Your task to perform on an android device: empty trash in google photos Image 0: 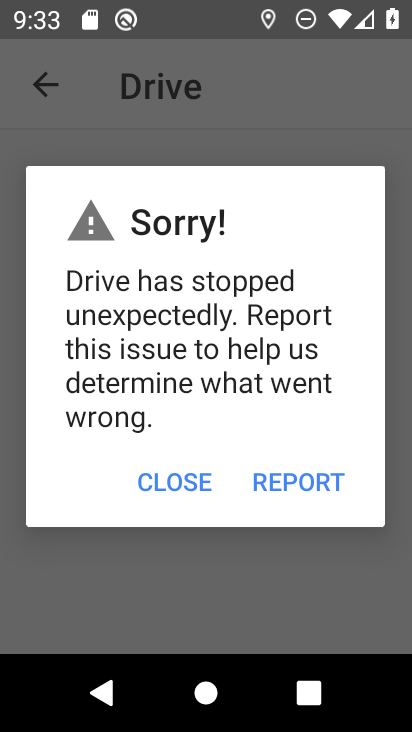
Step 0: press home button
Your task to perform on an android device: empty trash in google photos Image 1: 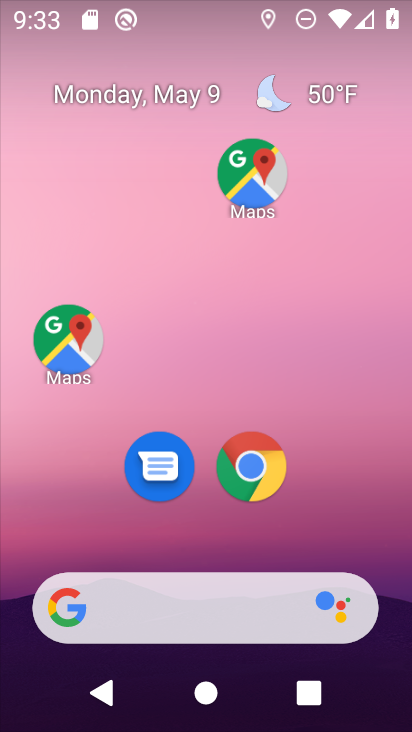
Step 1: drag from (221, 558) to (359, 0)
Your task to perform on an android device: empty trash in google photos Image 2: 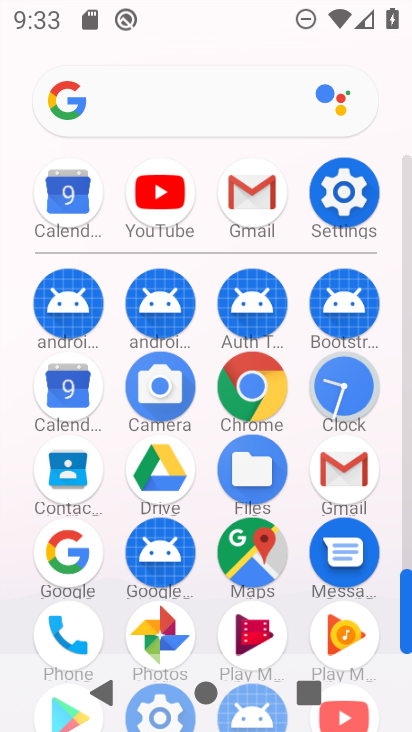
Step 2: click (169, 640)
Your task to perform on an android device: empty trash in google photos Image 3: 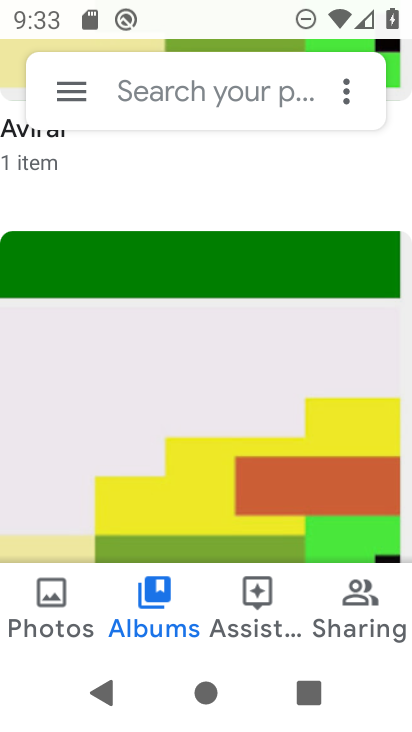
Step 3: click (64, 97)
Your task to perform on an android device: empty trash in google photos Image 4: 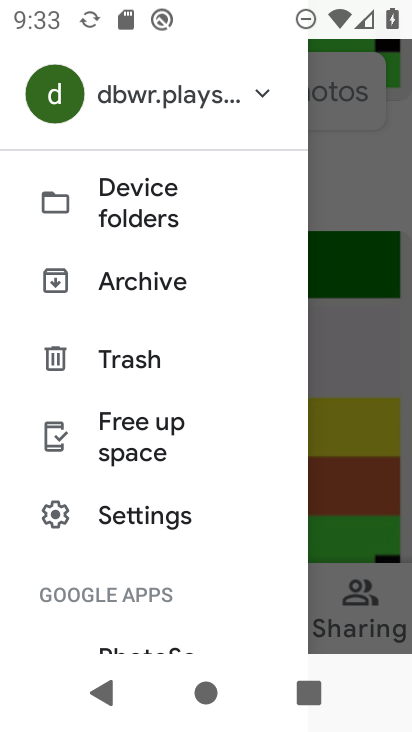
Step 4: click (136, 352)
Your task to perform on an android device: empty trash in google photos Image 5: 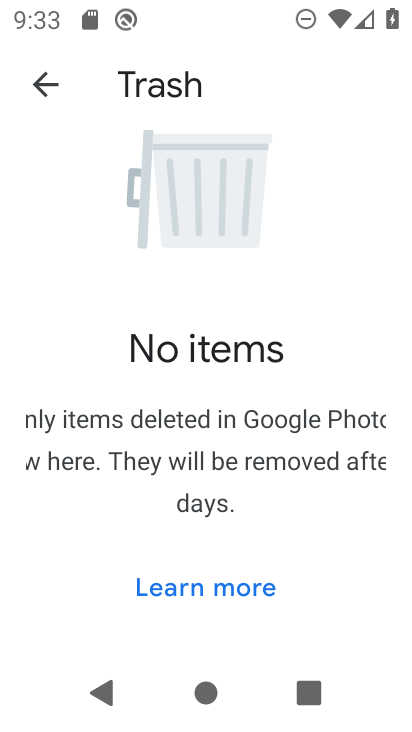
Step 5: task complete